Your task to perform on an android device: Open the map Image 0: 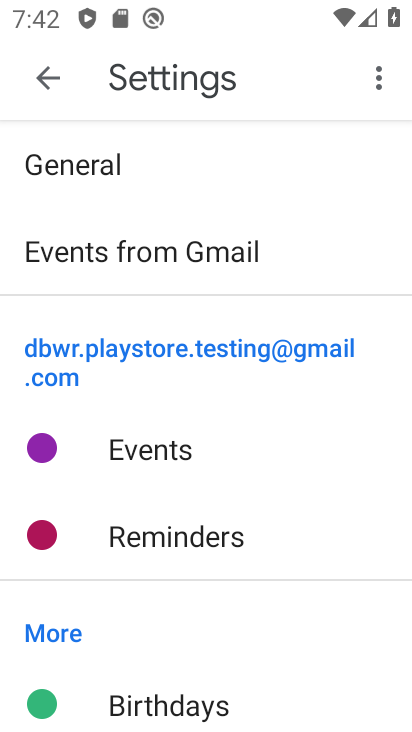
Step 0: press home button
Your task to perform on an android device: Open the map Image 1: 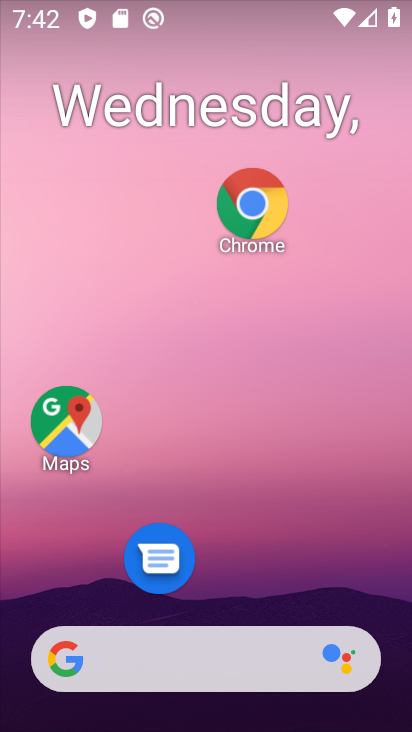
Step 1: drag from (214, 600) to (197, 70)
Your task to perform on an android device: Open the map Image 2: 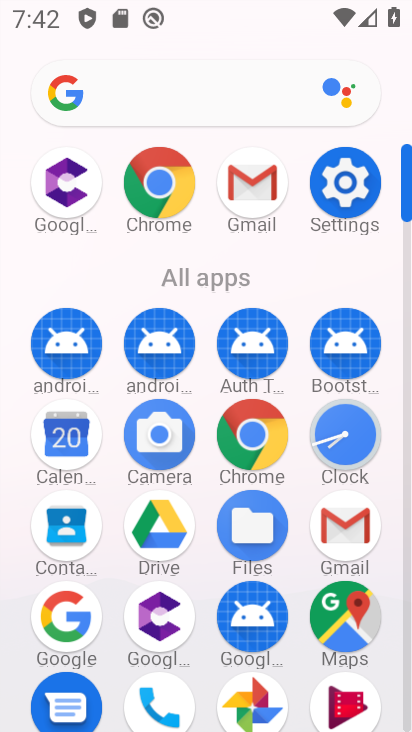
Step 2: click (348, 613)
Your task to perform on an android device: Open the map Image 3: 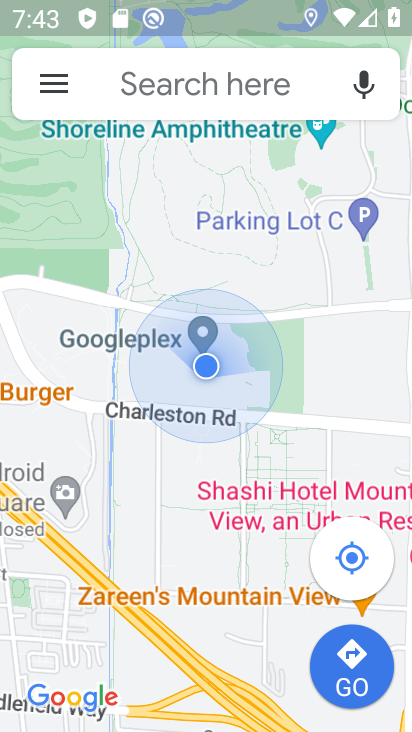
Step 3: click (46, 73)
Your task to perform on an android device: Open the map Image 4: 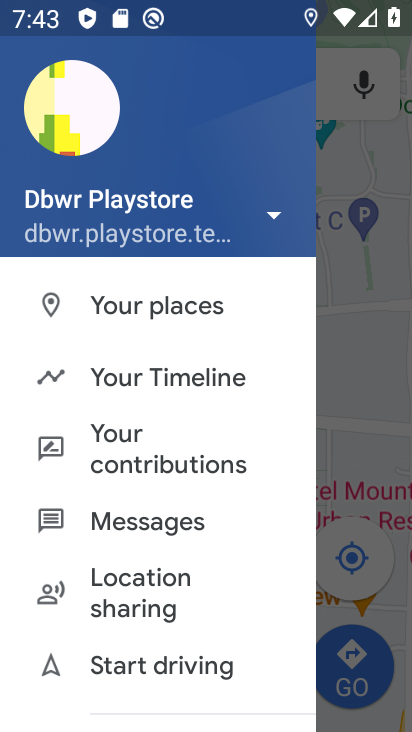
Step 4: task complete